Your task to perform on an android device: Turn on the flashlight Image 0: 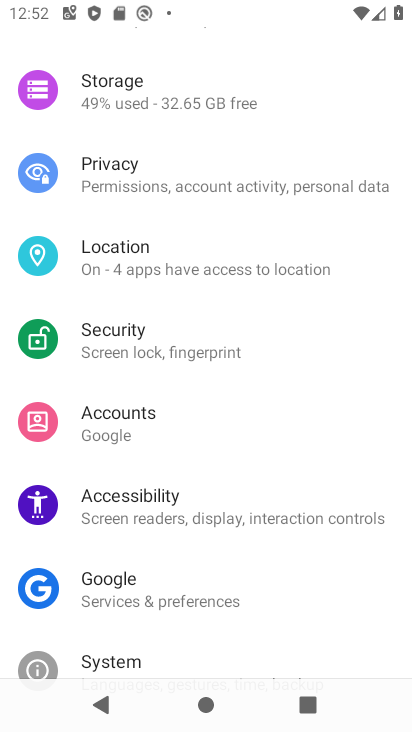
Step 0: drag from (368, 578) to (295, 200)
Your task to perform on an android device: Turn on the flashlight Image 1: 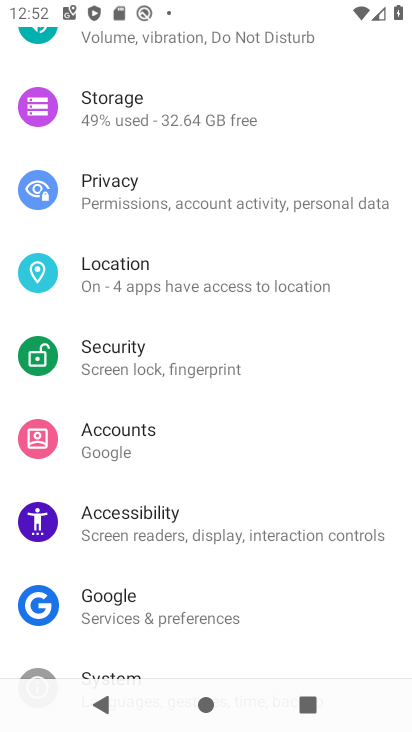
Step 1: task complete